Your task to perform on an android device: Open Chrome and go to settings Image 0: 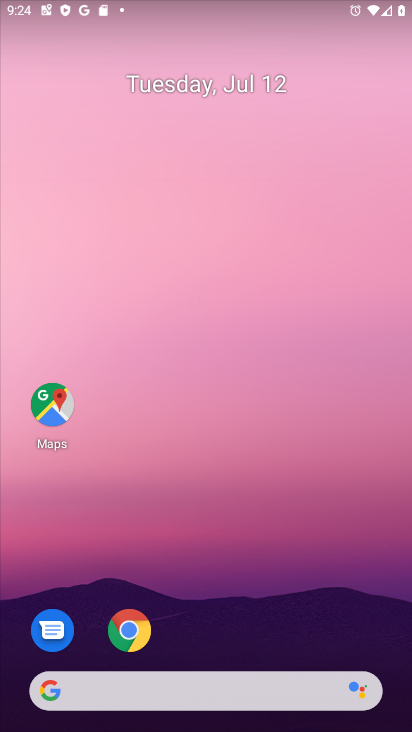
Step 0: click (133, 629)
Your task to perform on an android device: Open Chrome and go to settings Image 1: 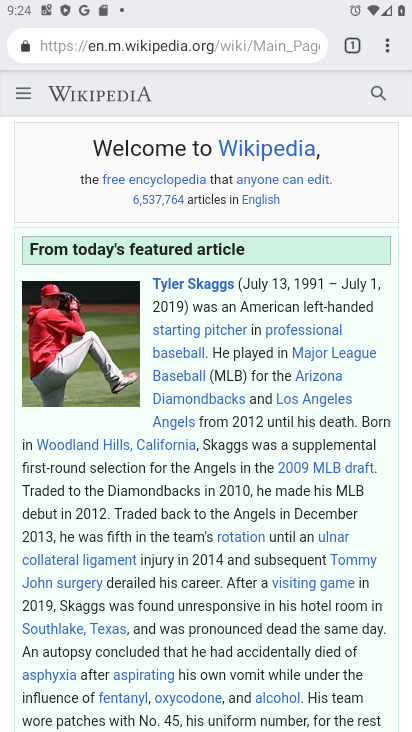
Step 1: click (379, 47)
Your task to perform on an android device: Open Chrome and go to settings Image 2: 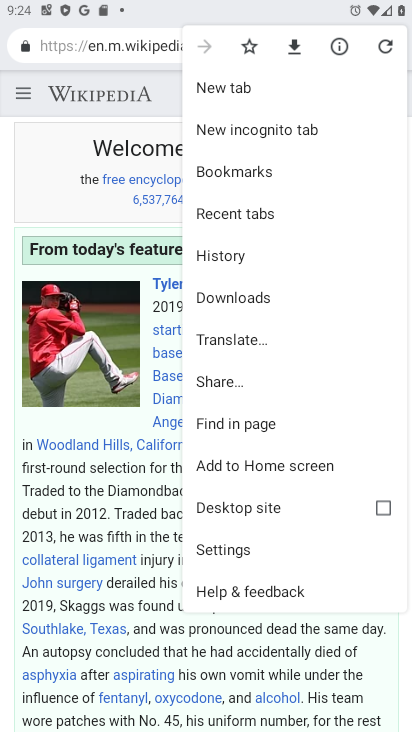
Step 2: click (234, 546)
Your task to perform on an android device: Open Chrome and go to settings Image 3: 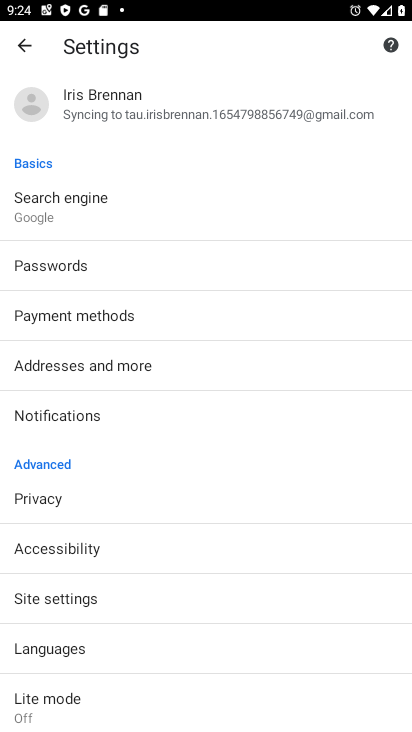
Step 3: task complete